Your task to perform on an android device: open sync settings in chrome Image 0: 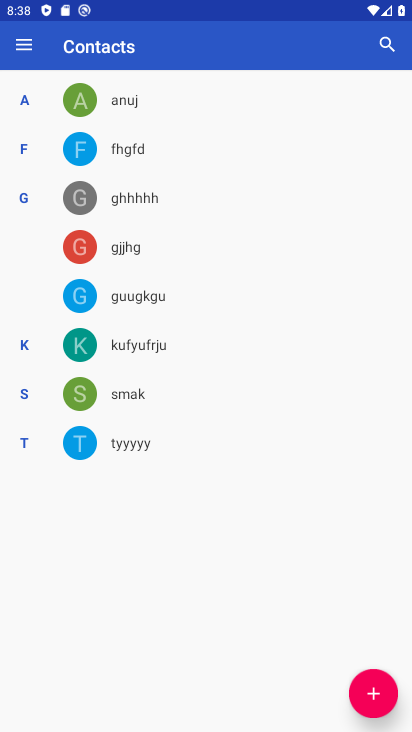
Step 0: press home button
Your task to perform on an android device: open sync settings in chrome Image 1: 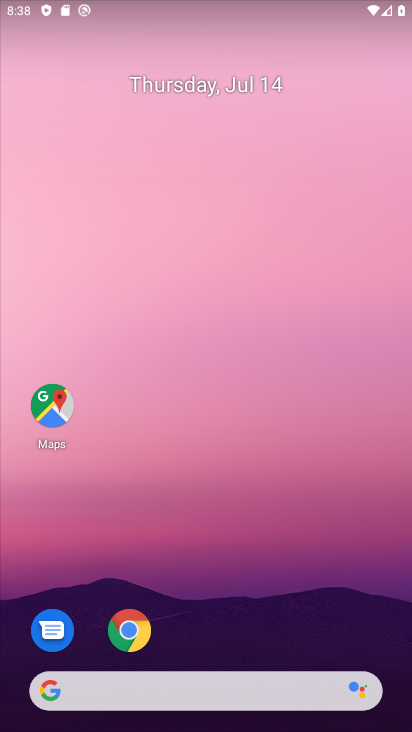
Step 1: drag from (243, 465) to (159, 12)
Your task to perform on an android device: open sync settings in chrome Image 2: 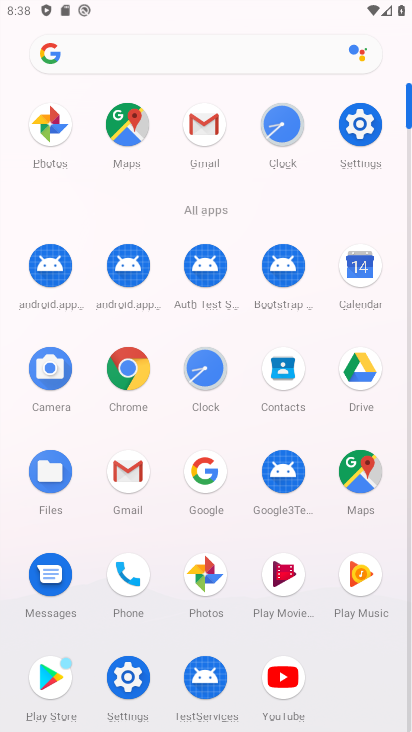
Step 2: click (131, 355)
Your task to perform on an android device: open sync settings in chrome Image 3: 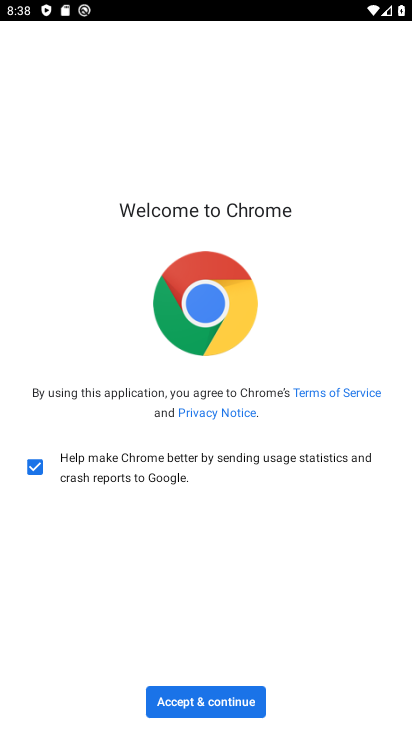
Step 3: click (182, 699)
Your task to perform on an android device: open sync settings in chrome Image 4: 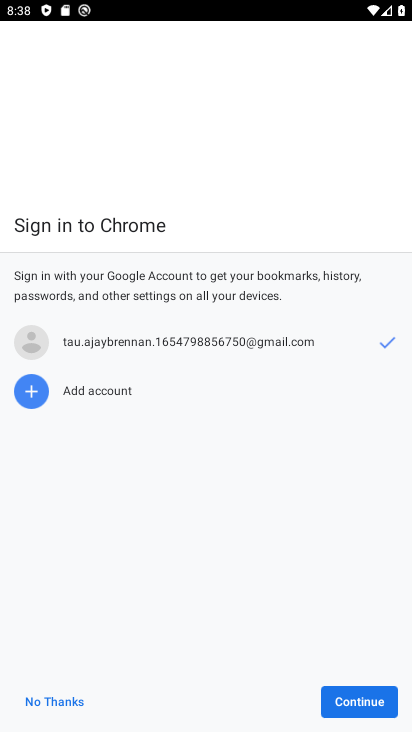
Step 4: click (57, 706)
Your task to perform on an android device: open sync settings in chrome Image 5: 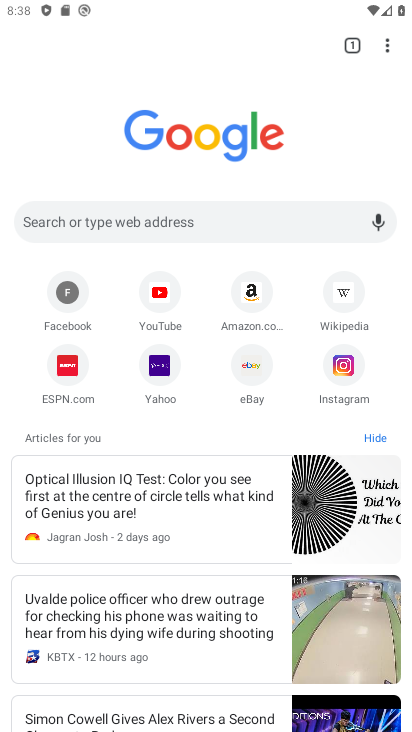
Step 5: drag from (390, 40) to (217, 388)
Your task to perform on an android device: open sync settings in chrome Image 6: 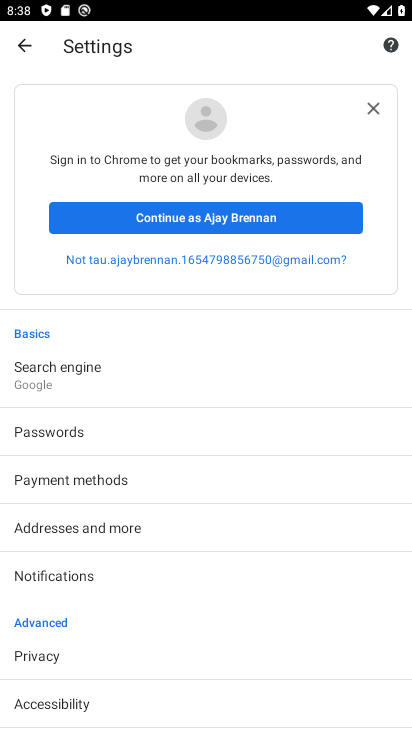
Step 6: drag from (198, 651) to (118, 274)
Your task to perform on an android device: open sync settings in chrome Image 7: 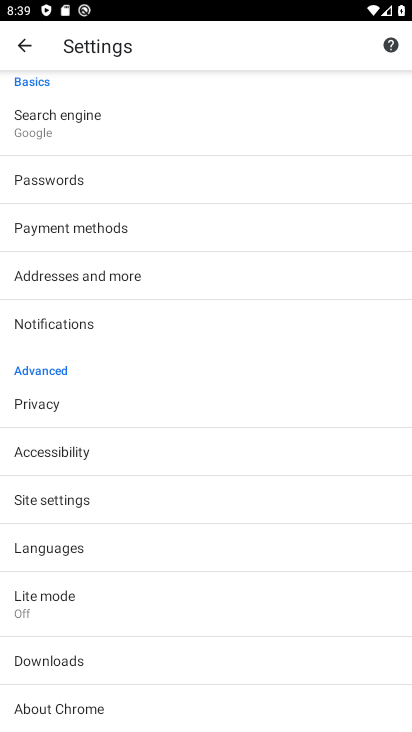
Step 7: click (135, 491)
Your task to perform on an android device: open sync settings in chrome Image 8: 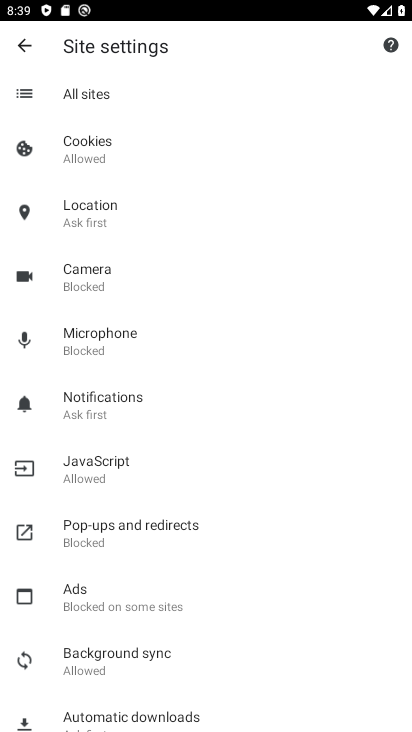
Step 8: click (161, 658)
Your task to perform on an android device: open sync settings in chrome Image 9: 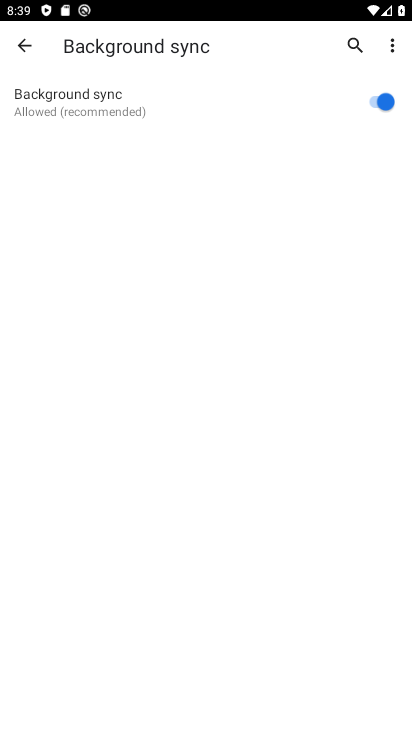
Step 9: task complete